Your task to perform on an android device: see sites visited before in the chrome app Image 0: 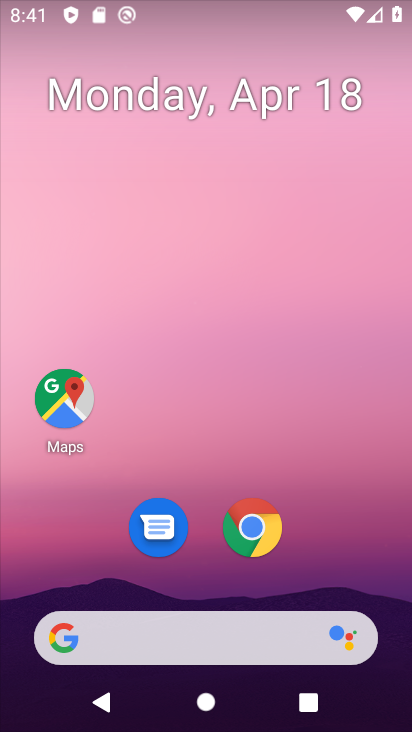
Step 0: drag from (380, 557) to (260, 13)
Your task to perform on an android device: see sites visited before in the chrome app Image 1: 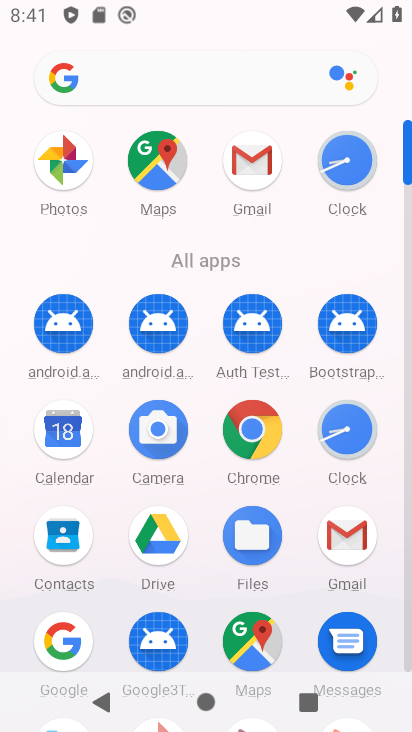
Step 1: drag from (13, 559) to (12, 309)
Your task to perform on an android device: see sites visited before in the chrome app Image 2: 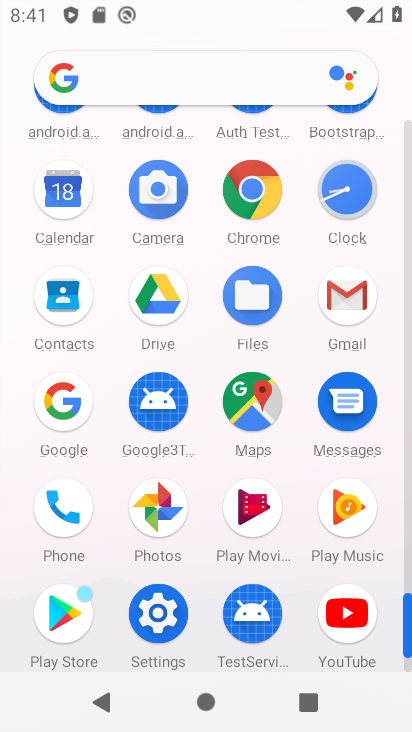
Step 2: click (248, 183)
Your task to perform on an android device: see sites visited before in the chrome app Image 3: 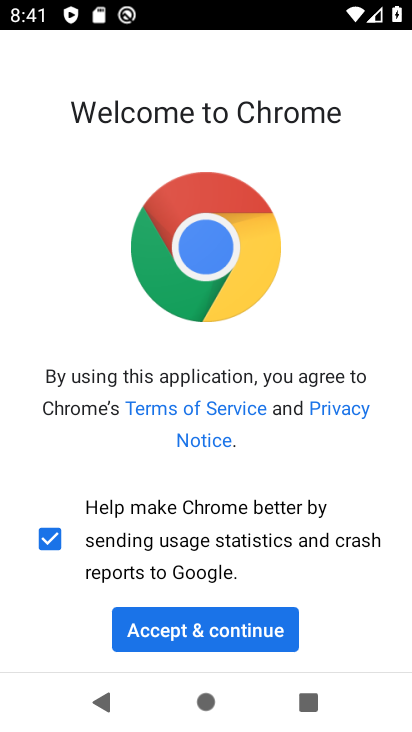
Step 3: click (243, 619)
Your task to perform on an android device: see sites visited before in the chrome app Image 4: 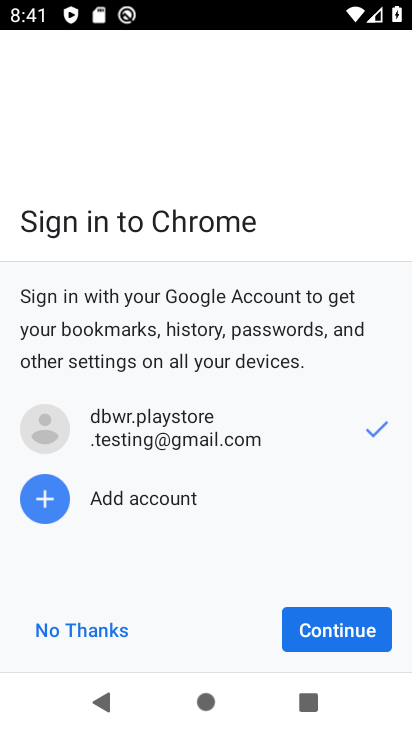
Step 4: click (321, 628)
Your task to perform on an android device: see sites visited before in the chrome app Image 5: 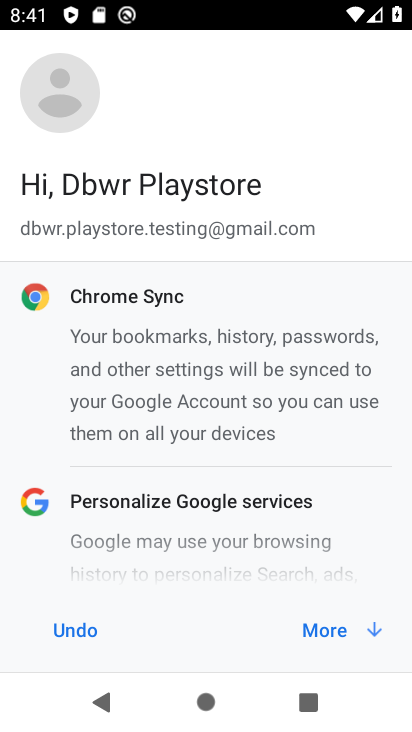
Step 5: click (321, 628)
Your task to perform on an android device: see sites visited before in the chrome app Image 6: 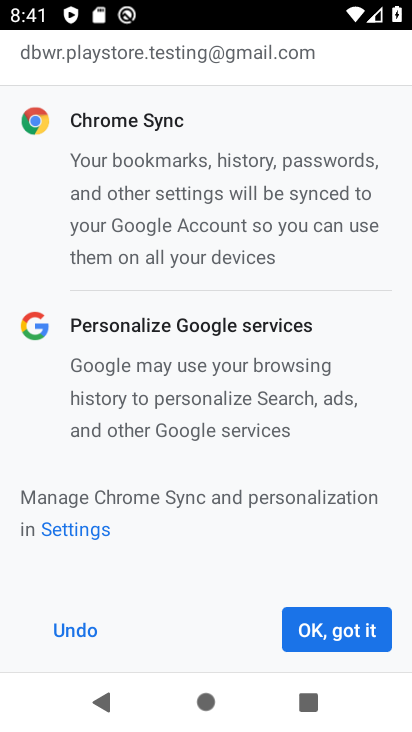
Step 6: click (321, 628)
Your task to perform on an android device: see sites visited before in the chrome app Image 7: 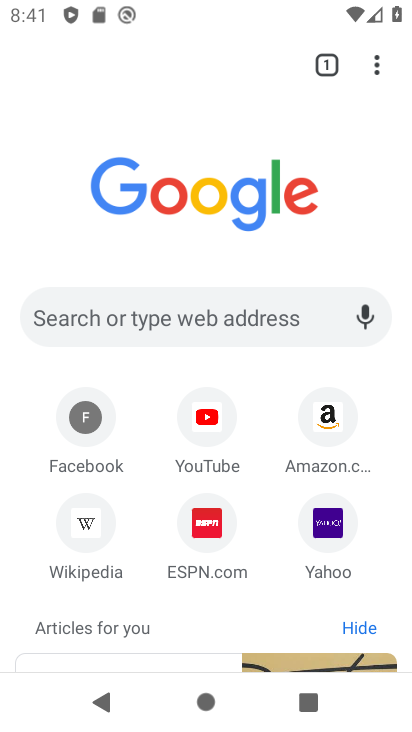
Step 7: task complete